Your task to perform on an android device: Is it going to rain today? Image 0: 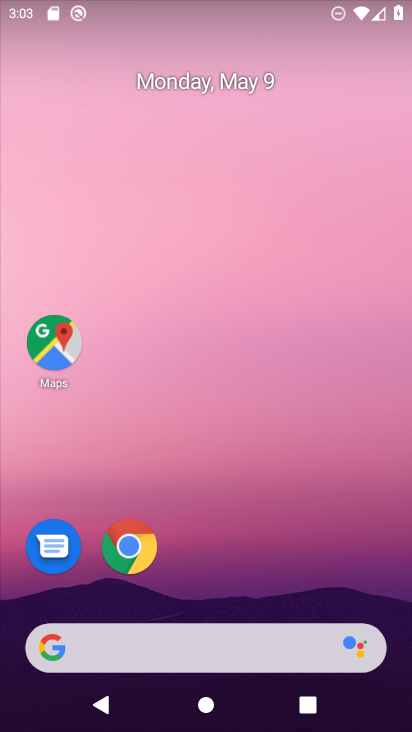
Step 0: click (180, 630)
Your task to perform on an android device: Is it going to rain today? Image 1: 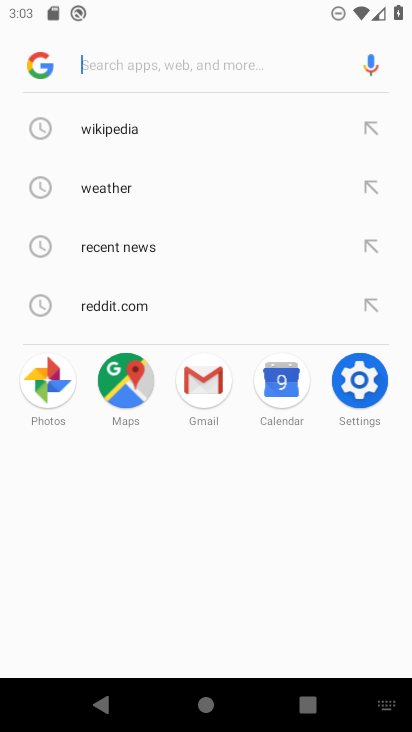
Step 1: type "Is it going to rain today?"
Your task to perform on an android device: Is it going to rain today? Image 2: 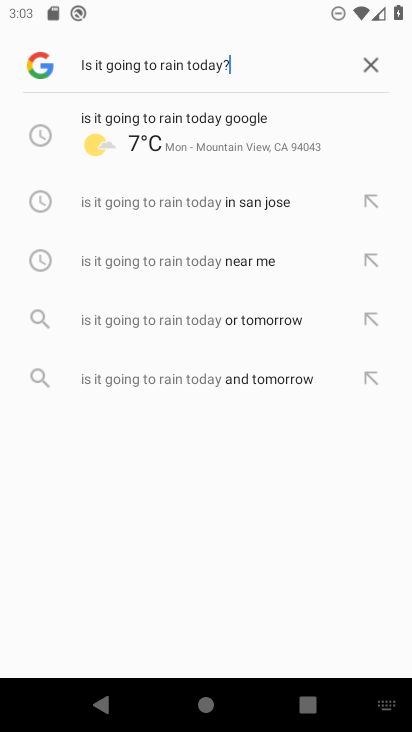
Step 2: click (193, 143)
Your task to perform on an android device: Is it going to rain today? Image 3: 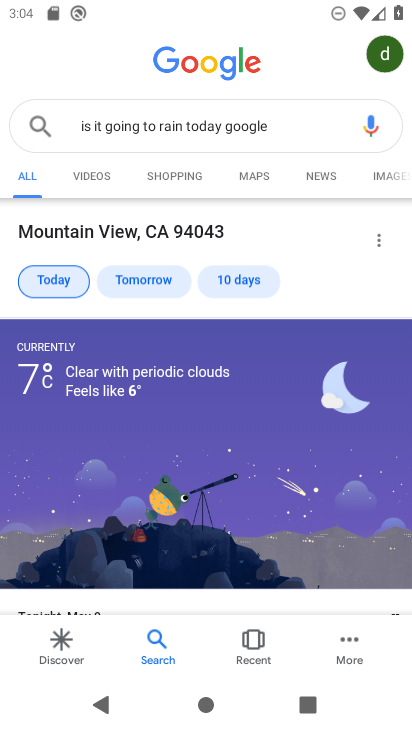
Step 3: task complete